Your task to perform on an android device: Open Google Image 0: 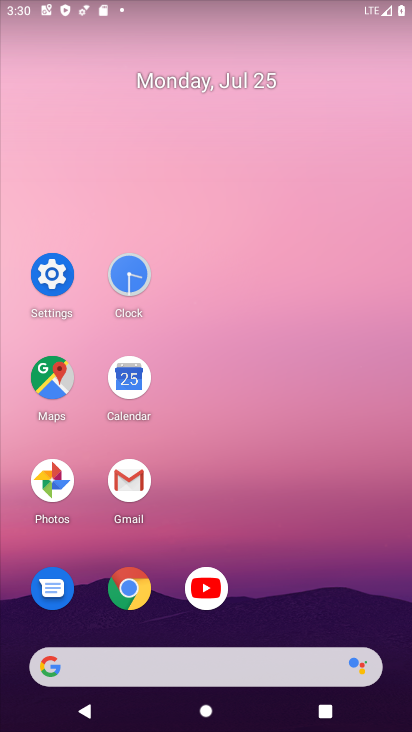
Step 0: click (48, 669)
Your task to perform on an android device: Open Google Image 1: 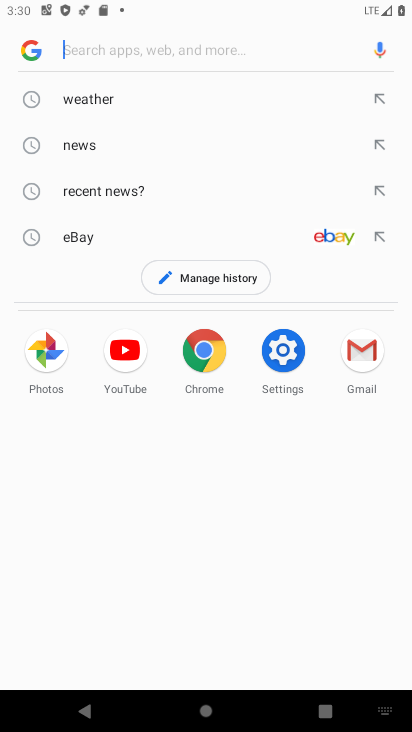
Step 1: click (26, 56)
Your task to perform on an android device: Open Google Image 2: 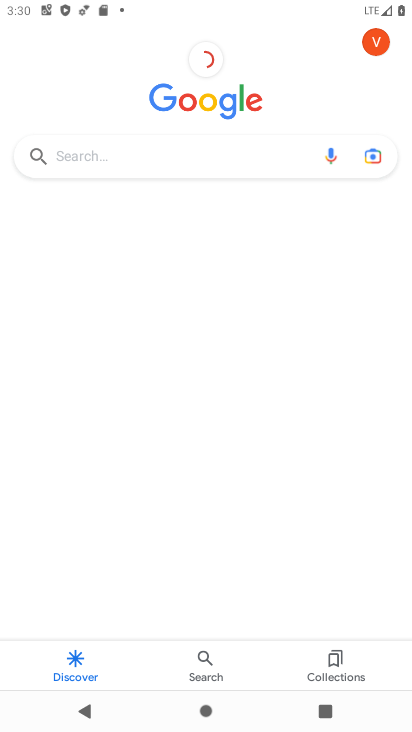
Step 2: task complete